Your task to perform on an android device: refresh tabs in the chrome app Image 0: 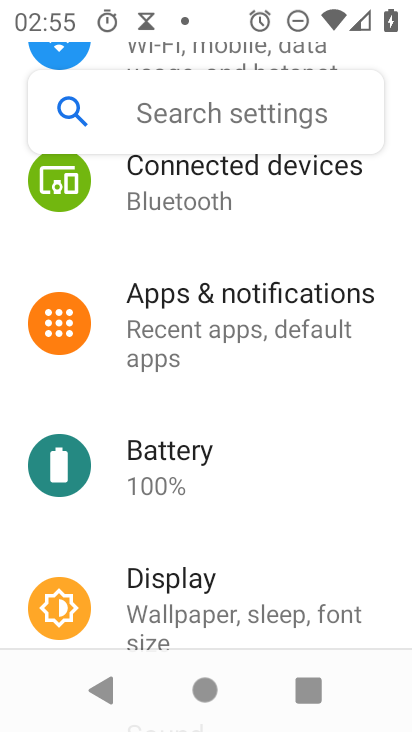
Step 0: press home button
Your task to perform on an android device: refresh tabs in the chrome app Image 1: 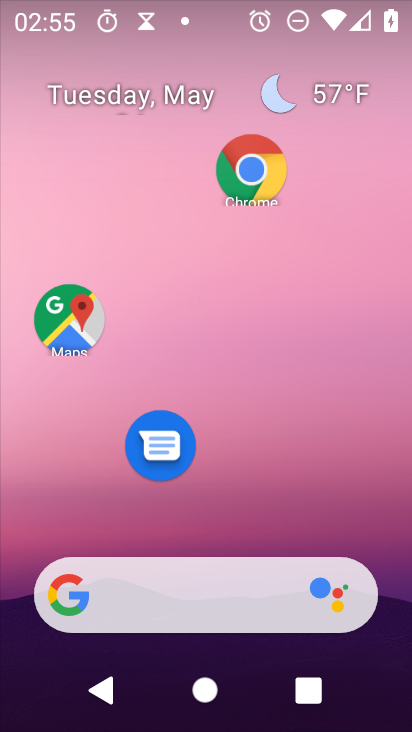
Step 1: click (253, 179)
Your task to perform on an android device: refresh tabs in the chrome app Image 2: 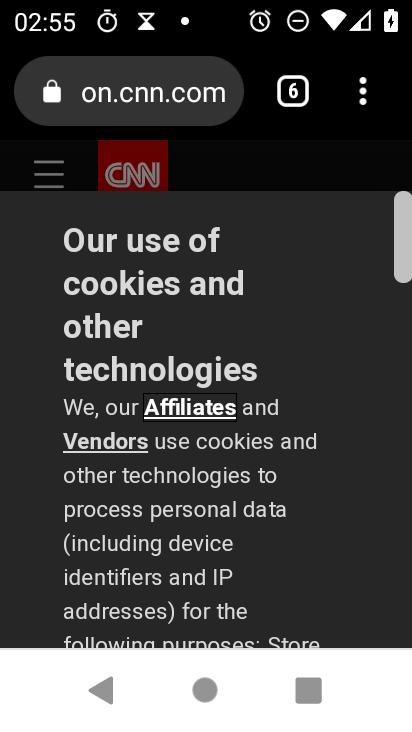
Step 2: click (362, 102)
Your task to perform on an android device: refresh tabs in the chrome app Image 3: 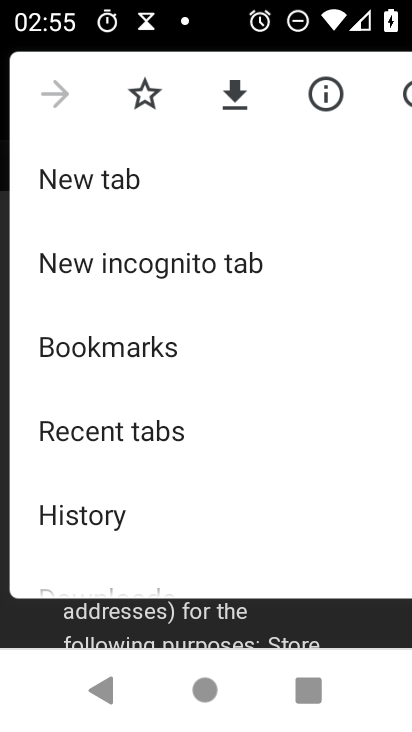
Step 3: click (406, 95)
Your task to perform on an android device: refresh tabs in the chrome app Image 4: 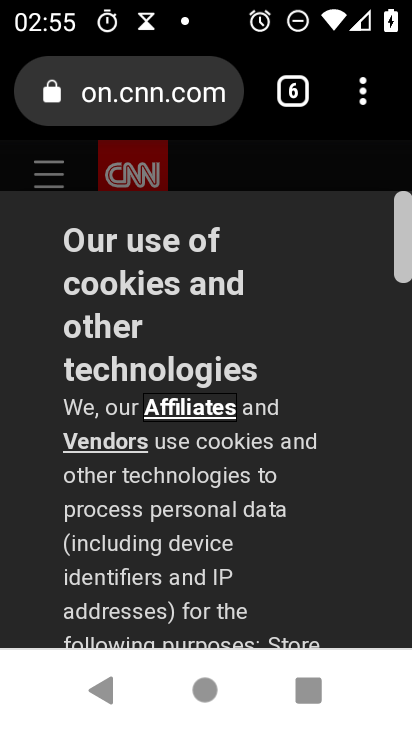
Step 4: task complete